Your task to perform on an android device: turn off location history Image 0: 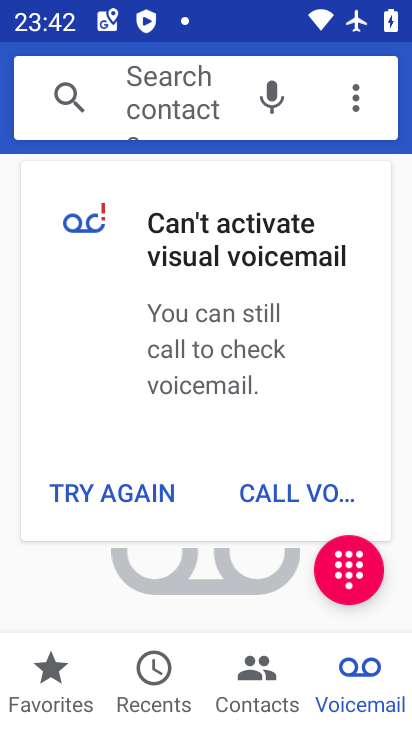
Step 0: press home button
Your task to perform on an android device: turn off location history Image 1: 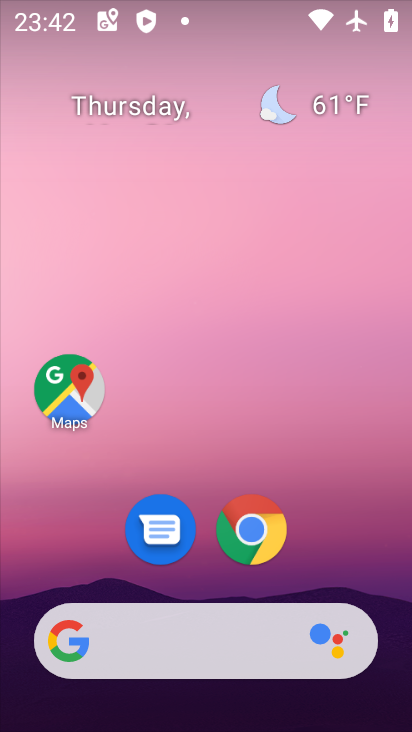
Step 1: drag from (374, 556) to (308, 18)
Your task to perform on an android device: turn off location history Image 2: 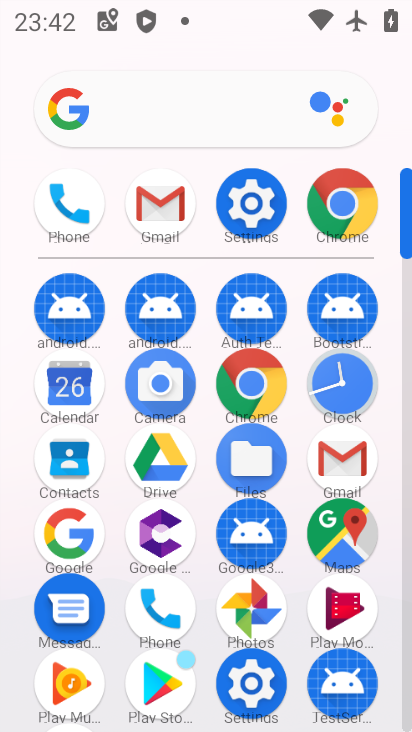
Step 2: click (230, 187)
Your task to perform on an android device: turn off location history Image 3: 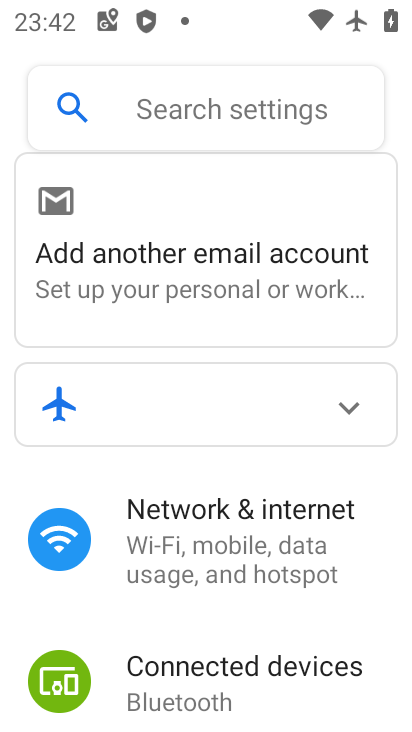
Step 3: drag from (235, 671) to (231, 54)
Your task to perform on an android device: turn off location history Image 4: 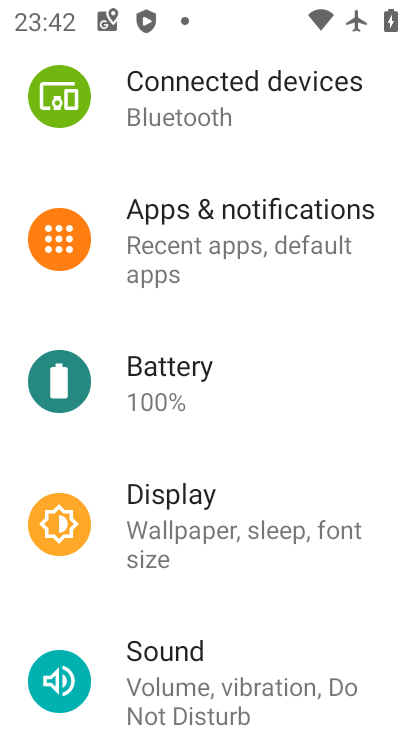
Step 4: drag from (203, 658) to (209, 280)
Your task to perform on an android device: turn off location history Image 5: 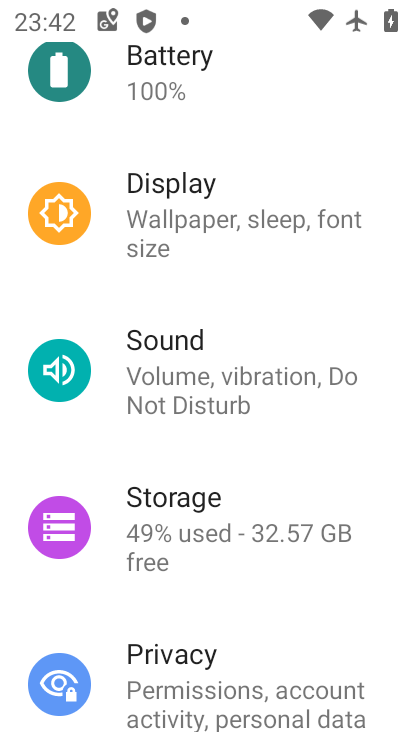
Step 5: drag from (233, 645) to (261, 238)
Your task to perform on an android device: turn off location history Image 6: 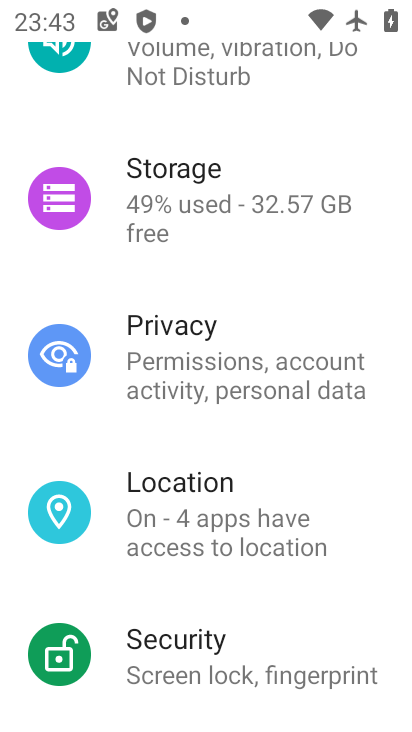
Step 6: click (226, 535)
Your task to perform on an android device: turn off location history Image 7: 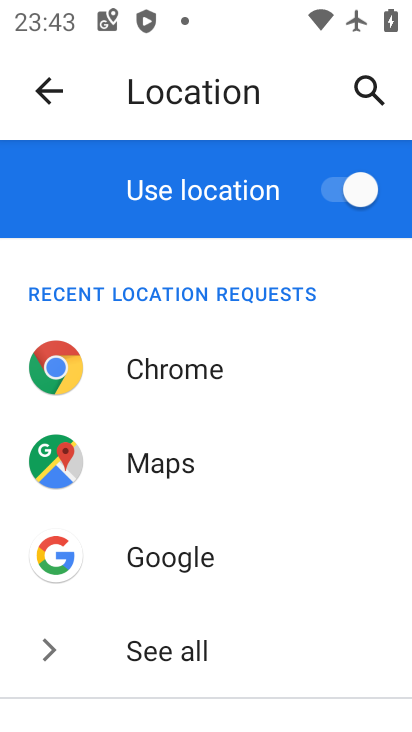
Step 7: drag from (214, 634) to (203, 24)
Your task to perform on an android device: turn off location history Image 8: 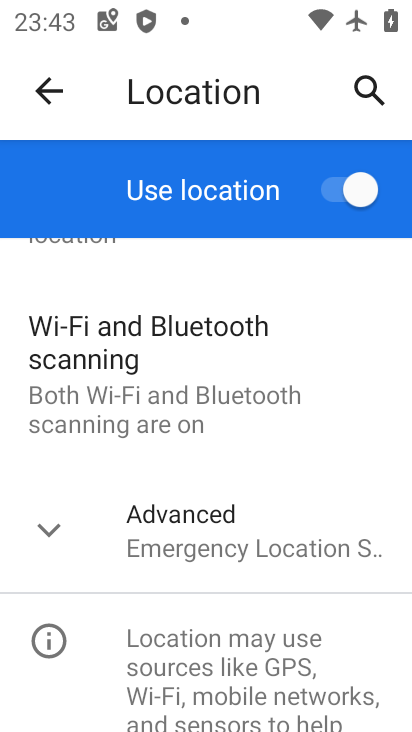
Step 8: click (187, 566)
Your task to perform on an android device: turn off location history Image 9: 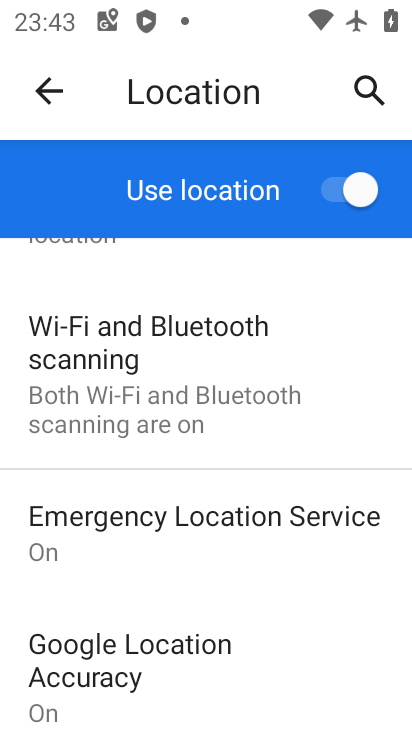
Step 9: task complete